Your task to perform on an android device: see sites visited before in the chrome app Image 0: 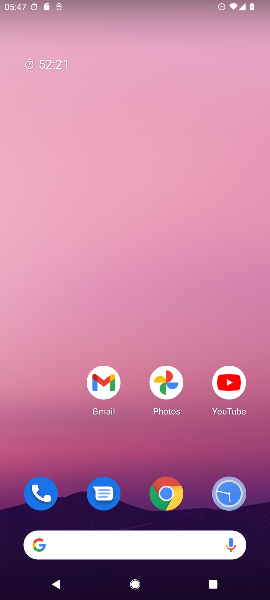
Step 0: press home button
Your task to perform on an android device: see sites visited before in the chrome app Image 1: 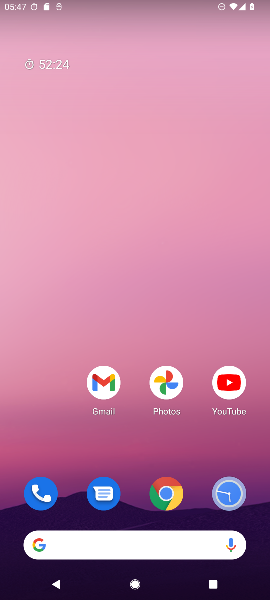
Step 1: drag from (64, 474) to (78, 193)
Your task to perform on an android device: see sites visited before in the chrome app Image 2: 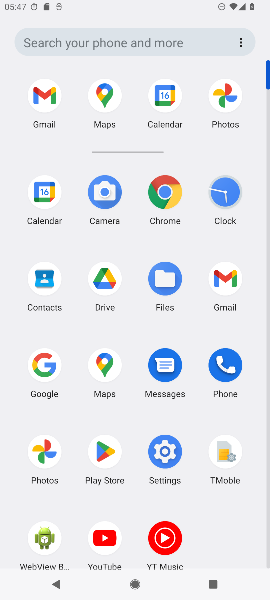
Step 2: click (166, 193)
Your task to perform on an android device: see sites visited before in the chrome app Image 3: 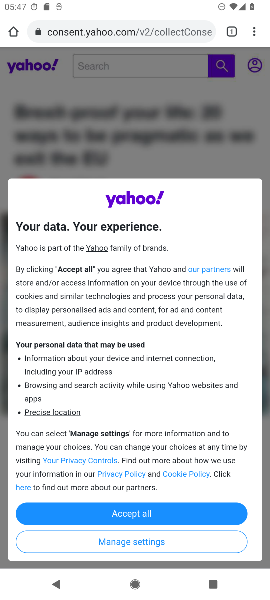
Step 3: click (254, 32)
Your task to perform on an android device: see sites visited before in the chrome app Image 4: 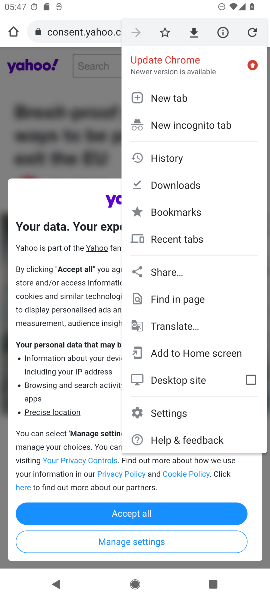
Step 4: drag from (210, 357) to (222, 286)
Your task to perform on an android device: see sites visited before in the chrome app Image 5: 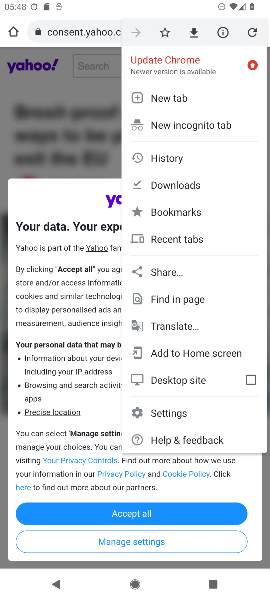
Step 5: click (179, 157)
Your task to perform on an android device: see sites visited before in the chrome app Image 6: 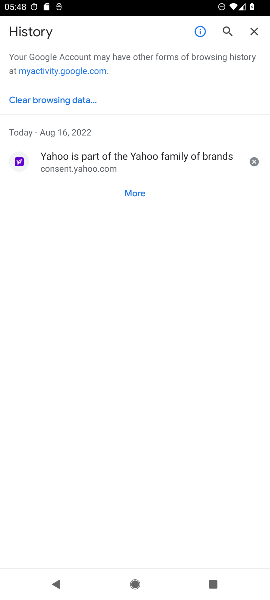
Step 6: task complete